Your task to perform on an android device: Open sound settings Image 0: 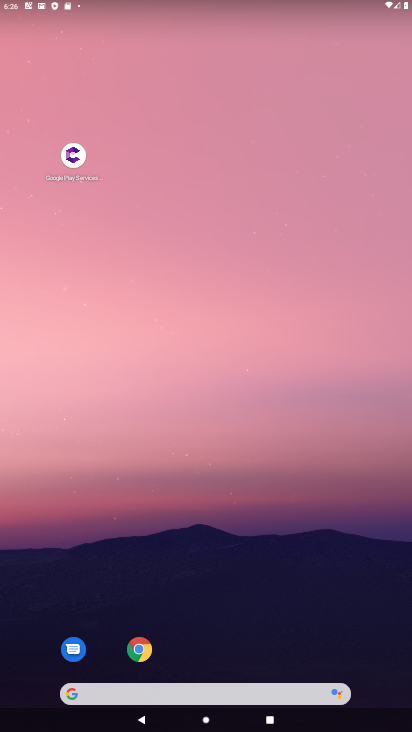
Step 0: drag from (198, 697) to (251, 286)
Your task to perform on an android device: Open sound settings Image 1: 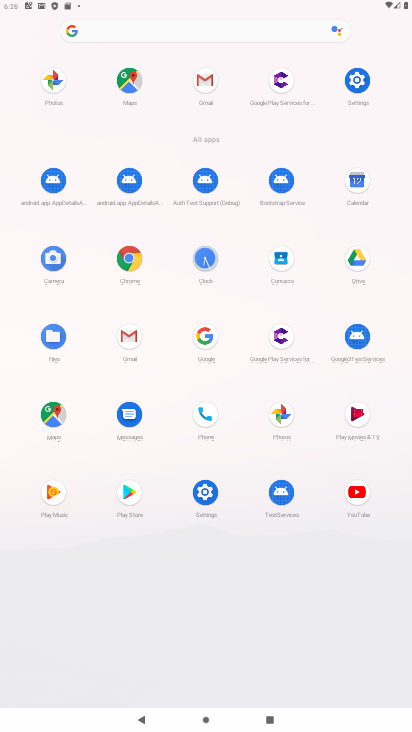
Step 1: click (359, 81)
Your task to perform on an android device: Open sound settings Image 2: 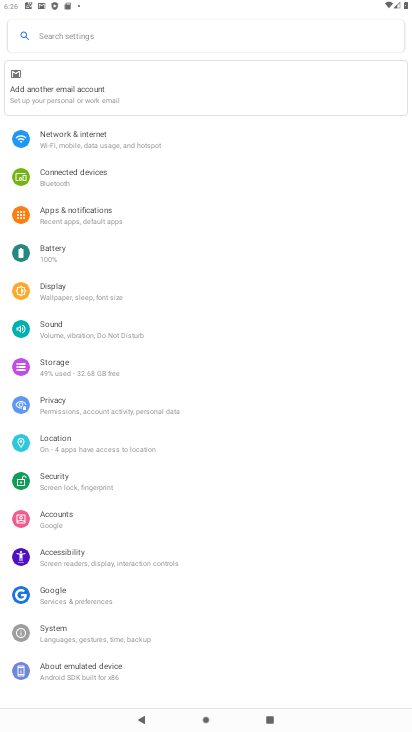
Step 2: click (51, 328)
Your task to perform on an android device: Open sound settings Image 3: 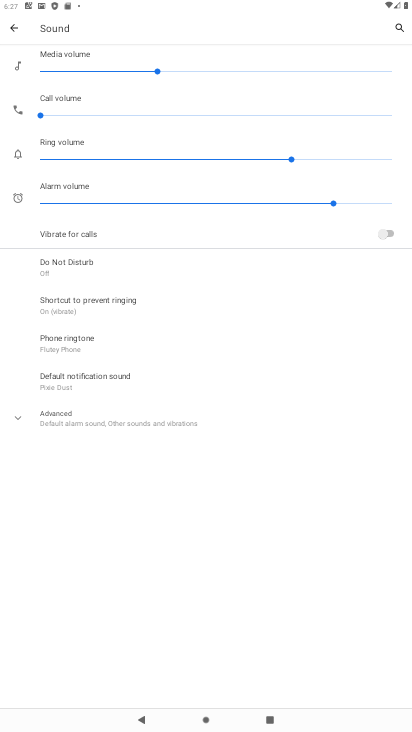
Step 3: task complete